Your task to perform on an android device: Open Youtube and go to the subscriptions tab Image 0: 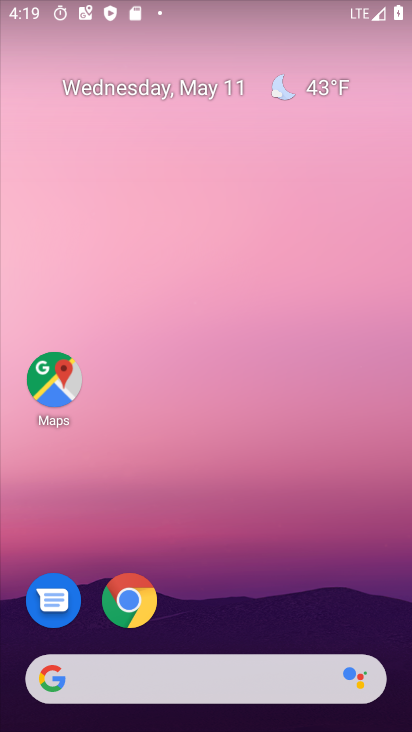
Step 0: drag from (357, 636) to (338, 17)
Your task to perform on an android device: Open Youtube and go to the subscriptions tab Image 1: 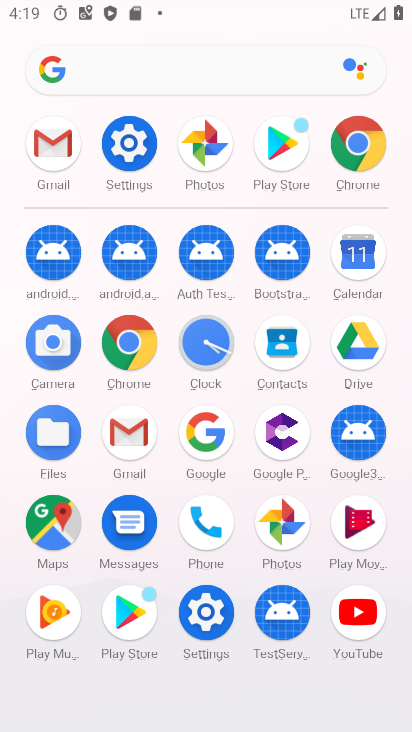
Step 1: click (353, 611)
Your task to perform on an android device: Open Youtube and go to the subscriptions tab Image 2: 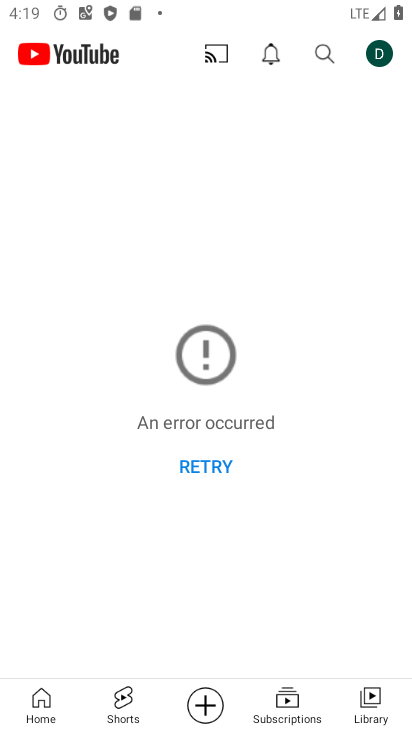
Step 2: click (282, 712)
Your task to perform on an android device: Open Youtube and go to the subscriptions tab Image 3: 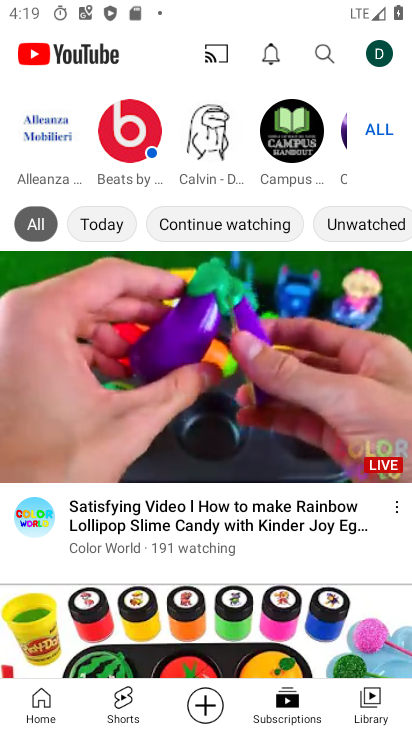
Step 3: task complete